Your task to perform on an android device: open the mobile data screen to see how much data has been used Image 0: 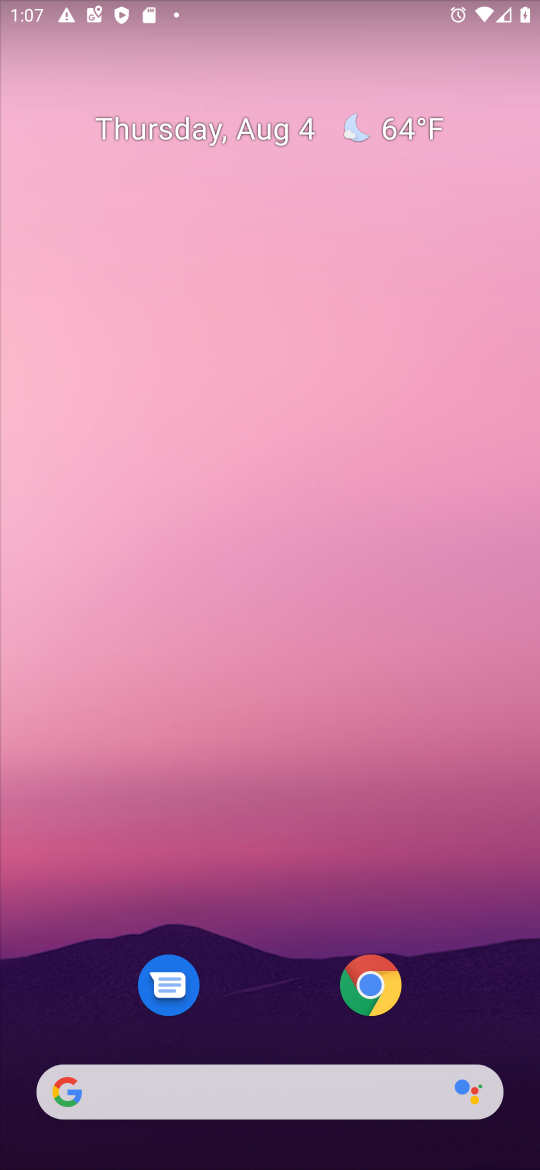
Step 0: drag from (287, 941) to (243, 56)
Your task to perform on an android device: open the mobile data screen to see how much data has been used Image 1: 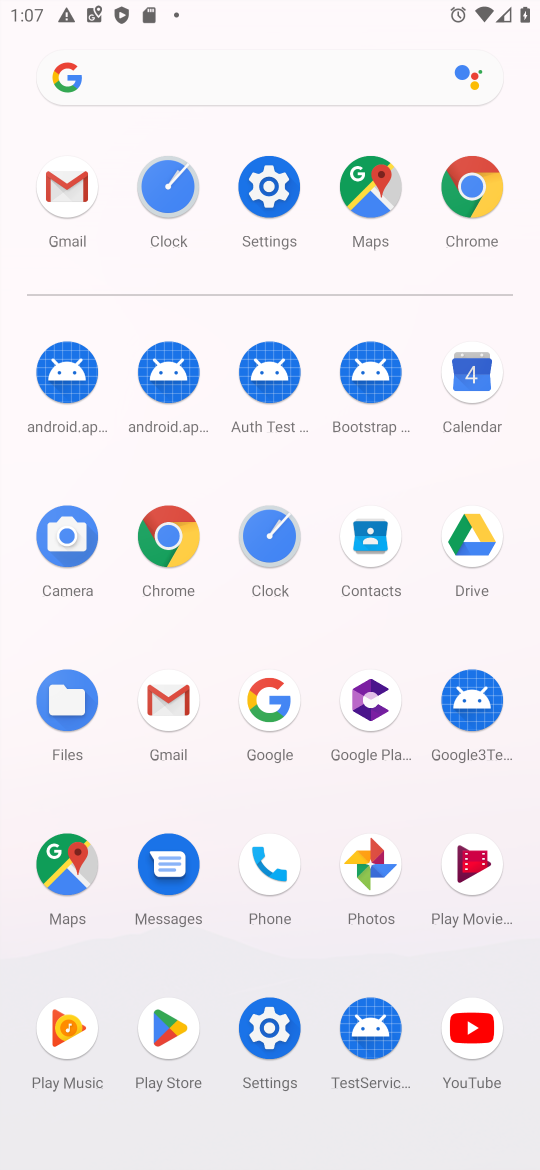
Step 1: click (262, 186)
Your task to perform on an android device: open the mobile data screen to see how much data has been used Image 2: 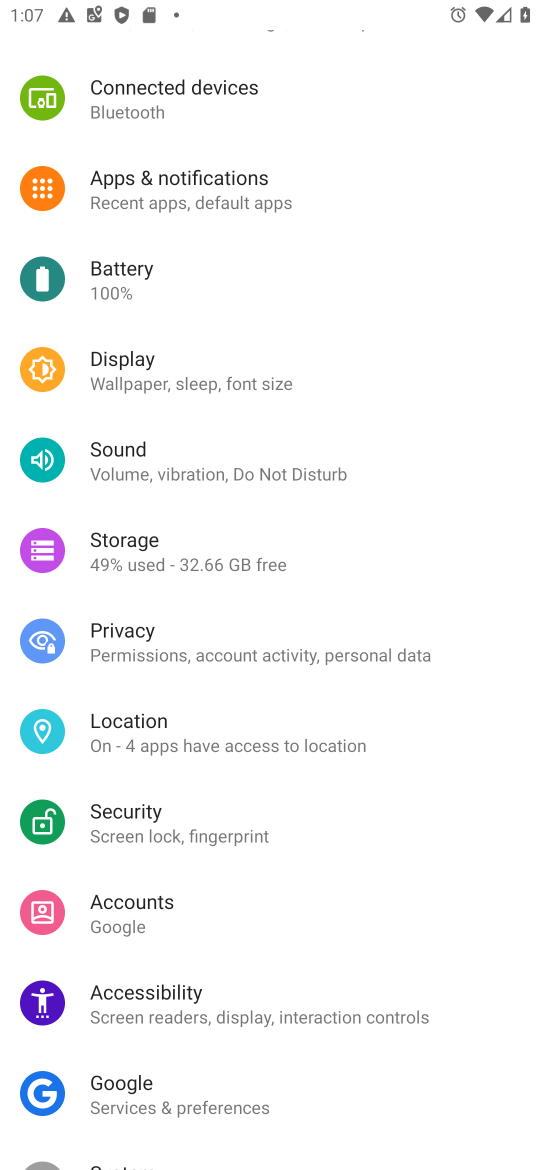
Step 2: drag from (221, 224) to (276, 918)
Your task to perform on an android device: open the mobile data screen to see how much data has been used Image 3: 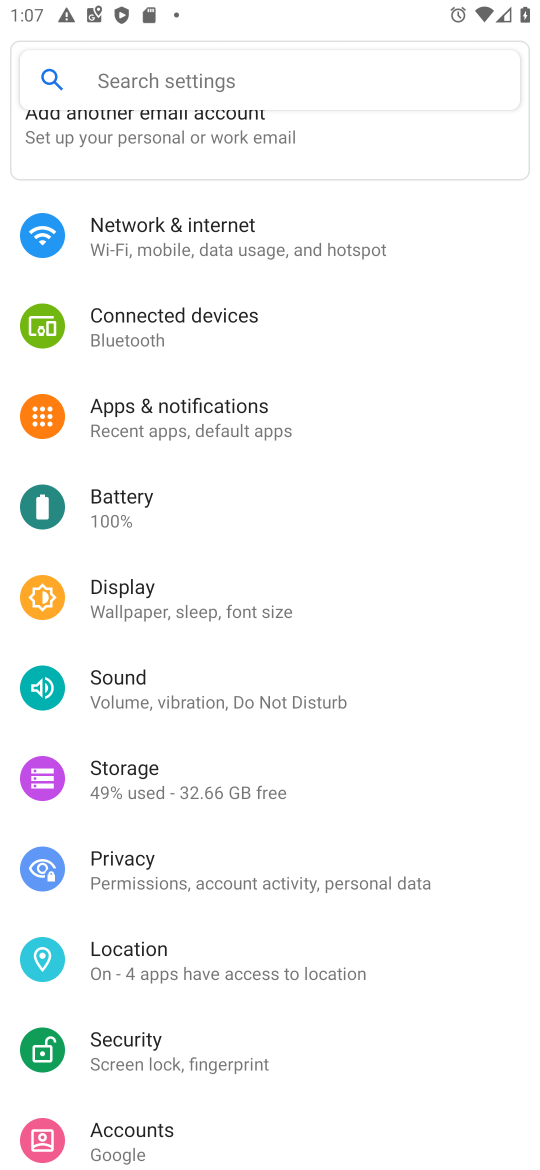
Step 3: click (170, 233)
Your task to perform on an android device: open the mobile data screen to see how much data has been used Image 4: 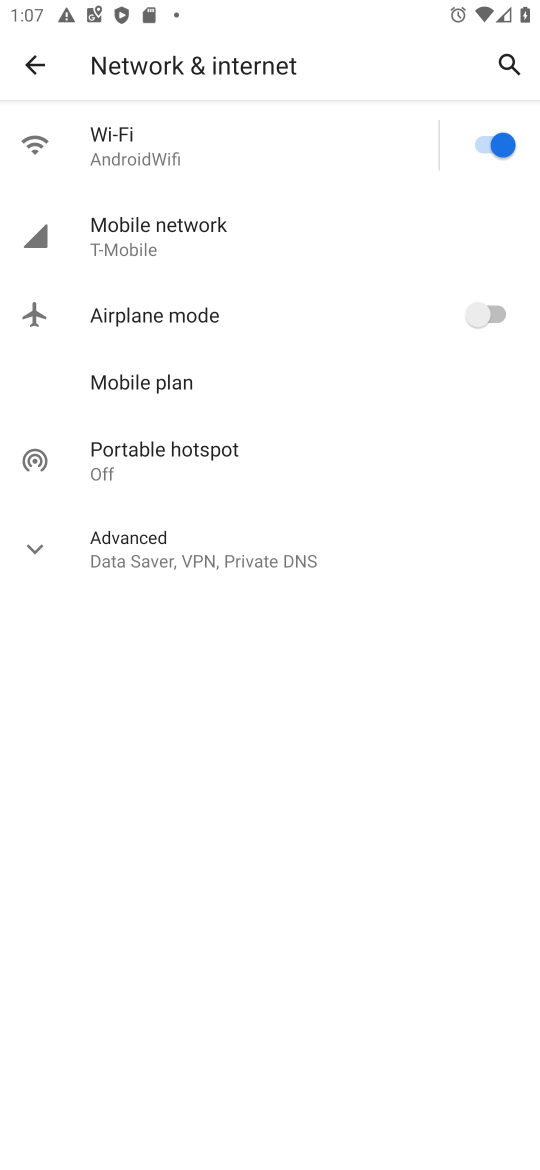
Step 4: click (175, 221)
Your task to perform on an android device: open the mobile data screen to see how much data has been used Image 5: 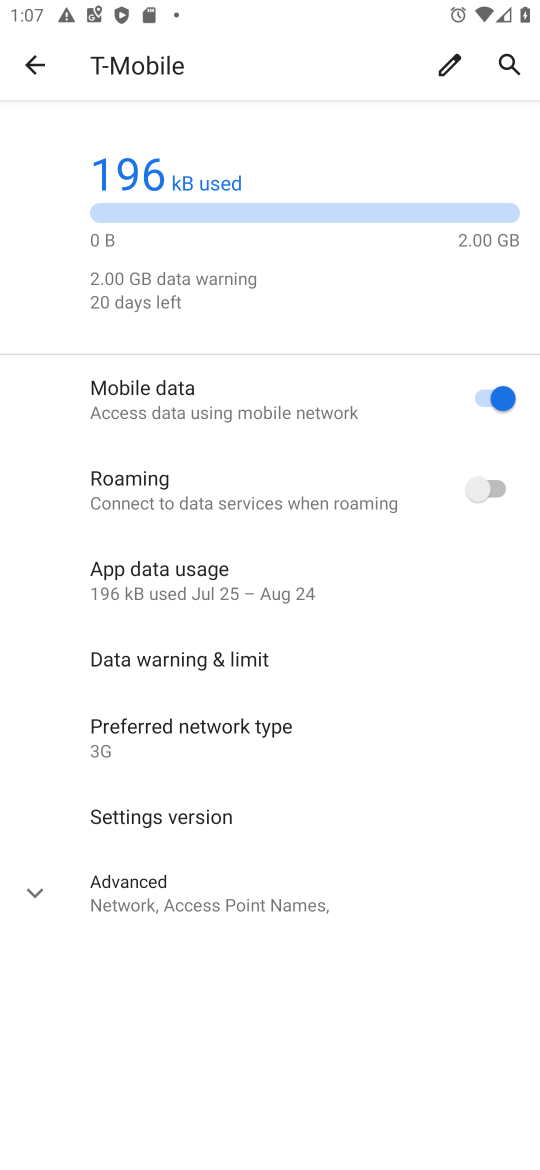
Step 5: task complete